Your task to perform on an android device: Check the weather Image 0: 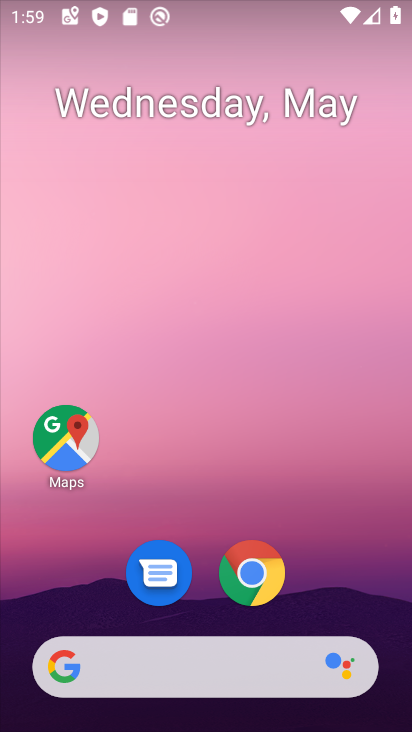
Step 0: click (134, 645)
Your task to perform on an android device: Check the weather Image 1: 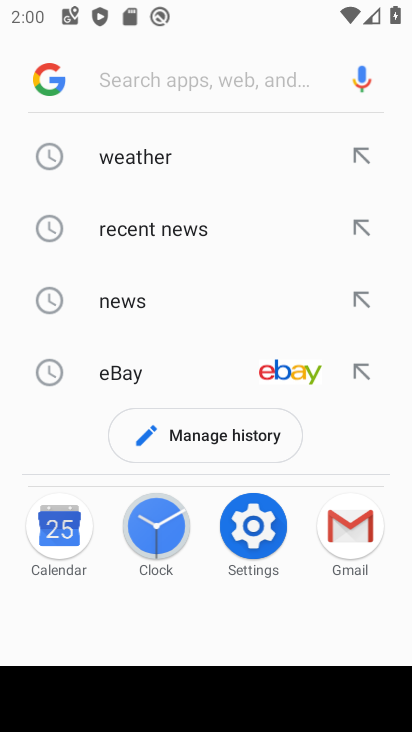
Step 1: type "weather"
Your task to perform on an android device: Check the weather Image 2: 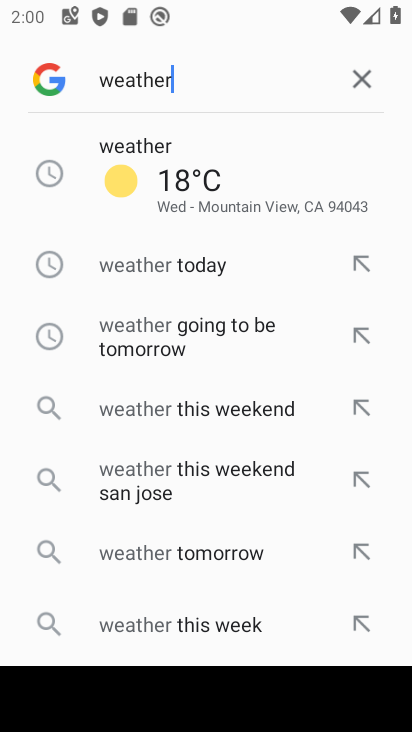
Step 2: click (162, 181)
Your task to perform on an android device: Check the weather Image 3: 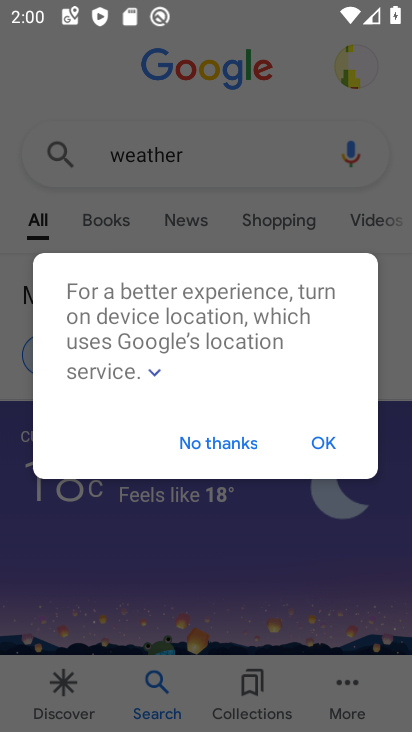
Step 3: click (308, 446)
Your task to perform on an android device: Check the weather Image 4: 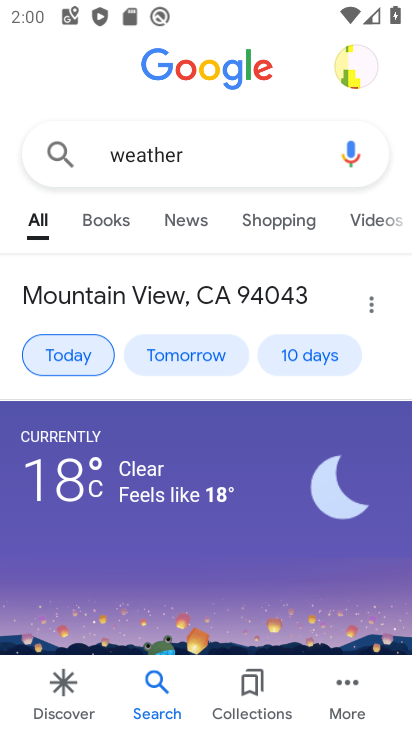
Step 4: task complete